Your task to perform on an android device: toggle priority inbox in the gmail app Image 0: 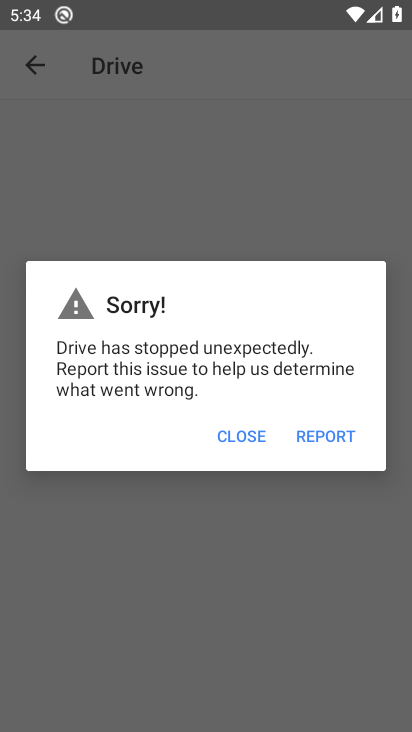
Step 0: drag from (140, 591) to (120, 118)
Your task to perform on an android device: toggle priority inbox in the gmail app Image 1: 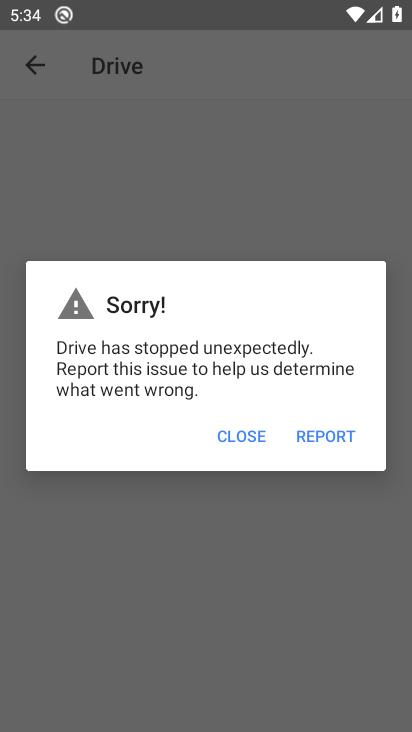
Step 1: drag from (198, 463) to (200, 352)
Your task to perform on an android device: toggle priority inbox in the gmail app Image 2: 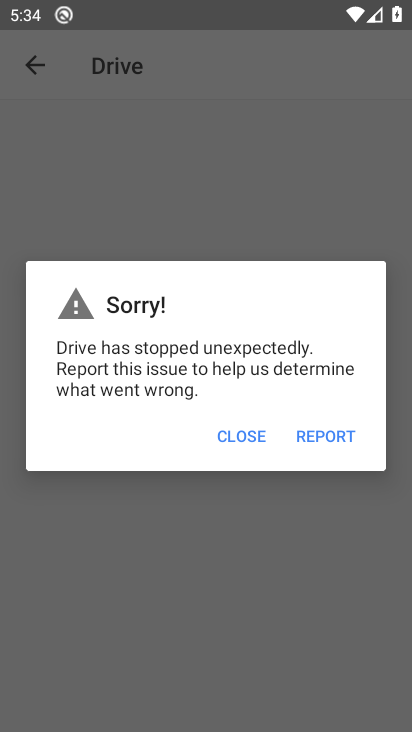
Step 2: click (231, 436)
Your task to perform on an android device: toggle priority inbox in the gmail app Image 3: 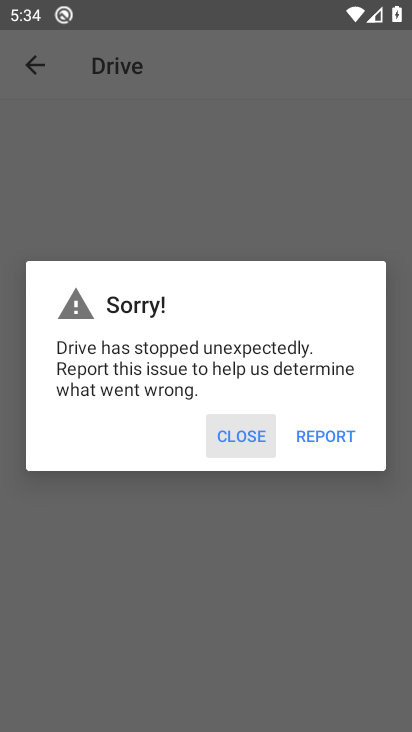
Step 3: click (233, 436)
Your task to perform on an android device: toggle priority inbox in the gmail app Image 4: 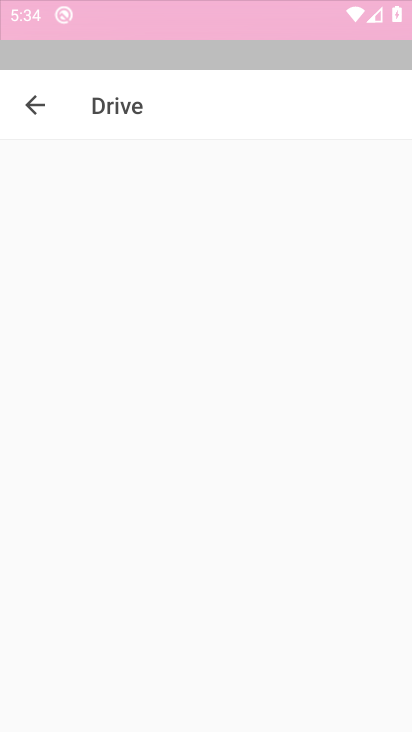
Step 4: click (234, 437)
Your task to perform on an android device: toggle priority inbox in the gmail app Image 5: 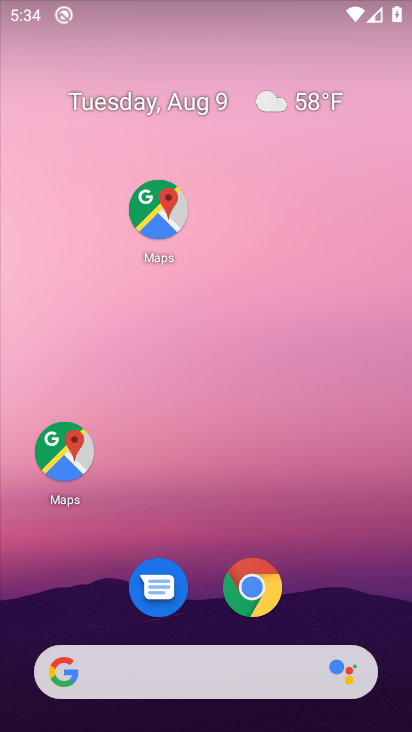
Step 5: drag from (216, 491) to (169, 99)
Your task to perform on an android device: toggle priority inbox in the gmail app Image 6: 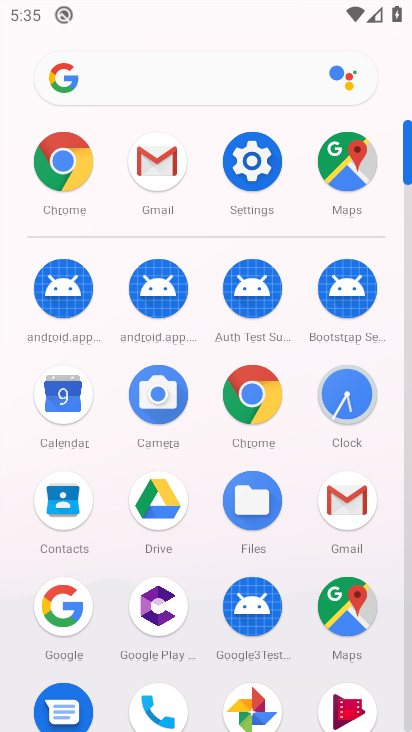
Step 6: click (335, 487)
Your task to perform on an android device: toggle priority inbox in the gmail app Image 7: 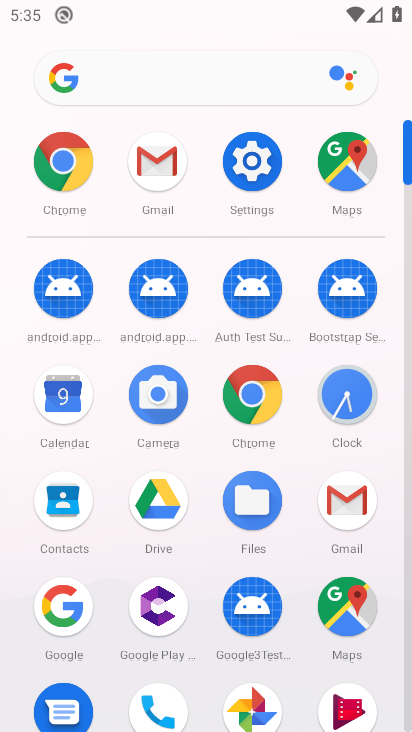
Step 7: click (335, 487)
Your task to perform on an android device: toggle priority inbox in the gmail app Image 8: 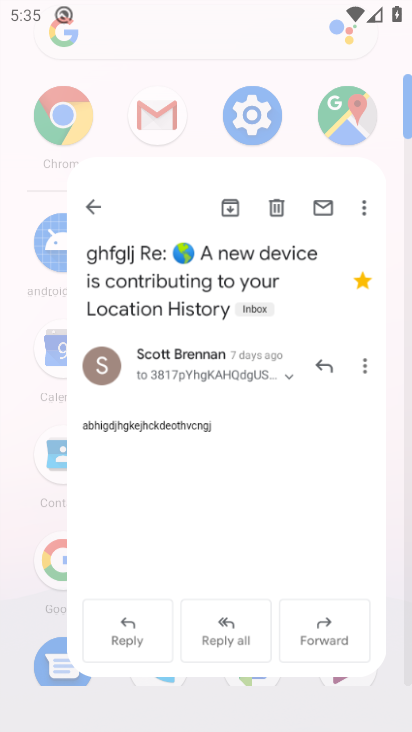
Step 8: click (335, 490)
Your task to perform on an android device: toggle priority inbox in the gmail app Image 9: 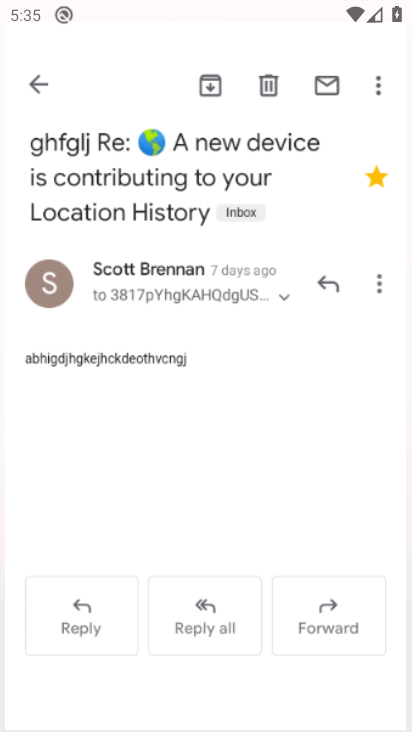
Step 9: click (333, 493)
Your task to perform on an android device: toggle priority inbox in the gmail app Image 10: 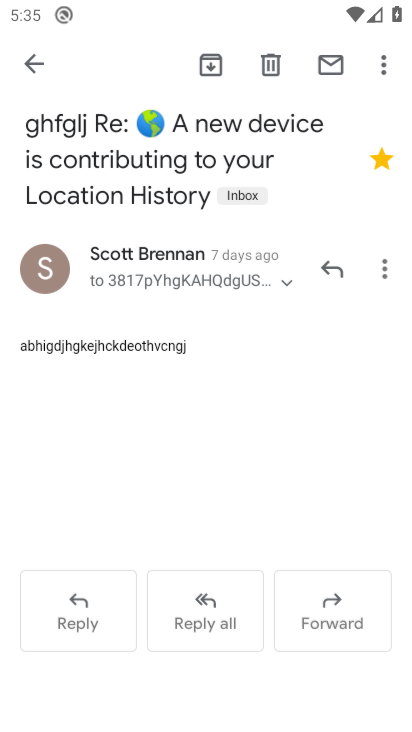
Step 10: click (330, 499)
Your task to perform on an android device: toggle priority inbox in the gmail app Image 11: 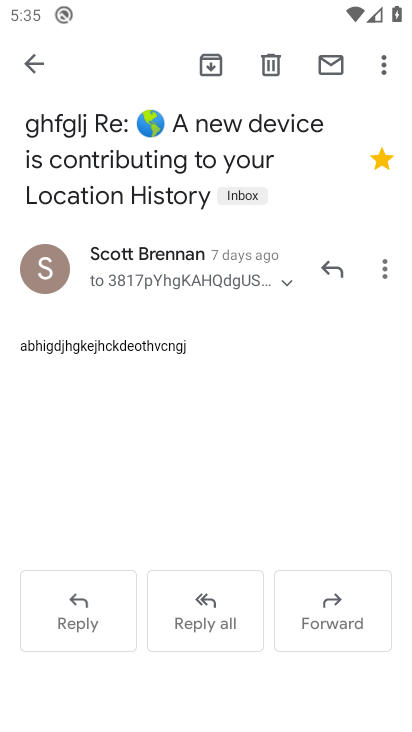
Step 11: click (335, 508)
Your task to perform on an android device: toggle priority inbox in the gmail app Image 12: 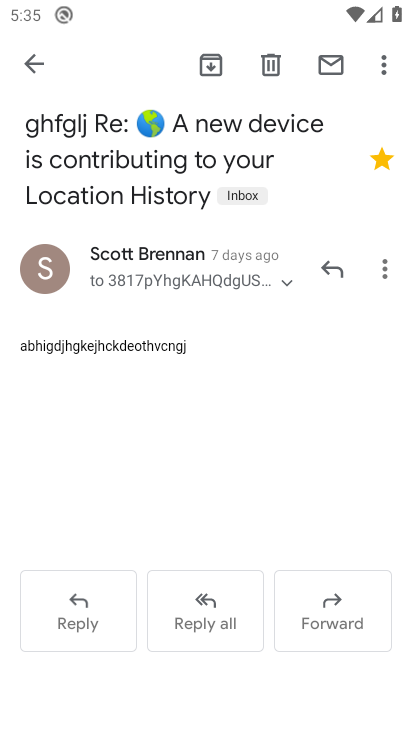
Step 12: click (34, 58)
Your task to perform on an android device: toggle priority inbox in the gmail app Image 13: 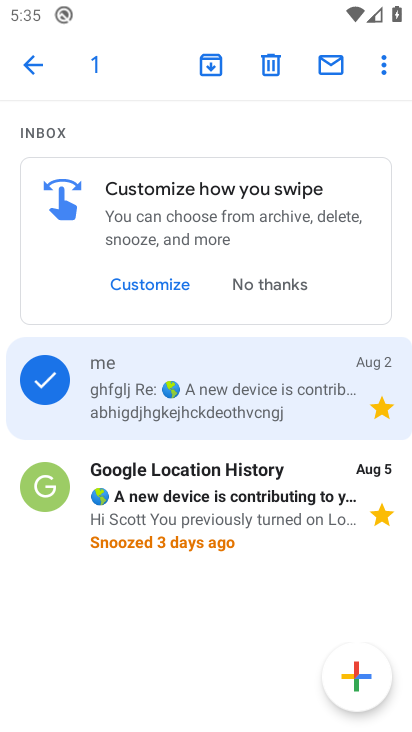
Step 13: click (24, 71)
Your task to perform on an android device: toggle priority inbox in the gmail app Image 14: 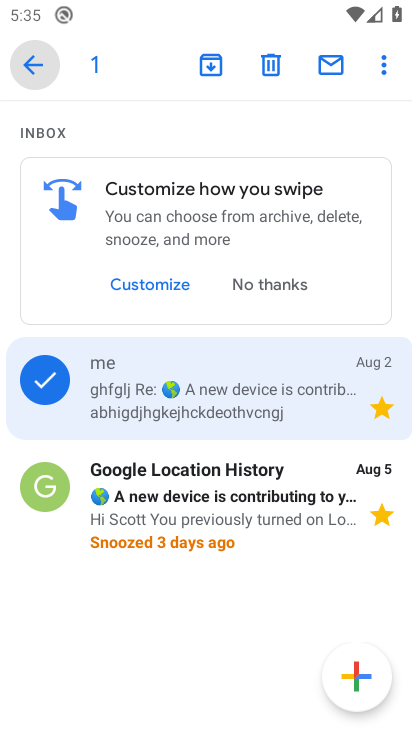
Step 14: click (24, 71)
Your task to perform on an android device: toggle priority inbox in the gmail app Image 15: 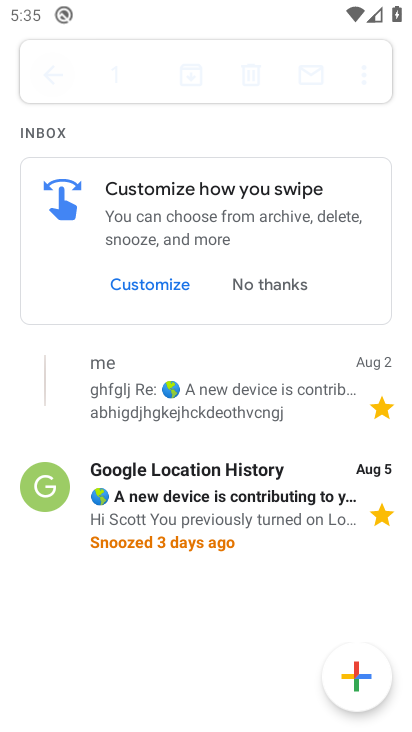
Step 15: click (24, 71)
Your task to perform on an android device: toggle priority inbox in the gmail app Image 16: 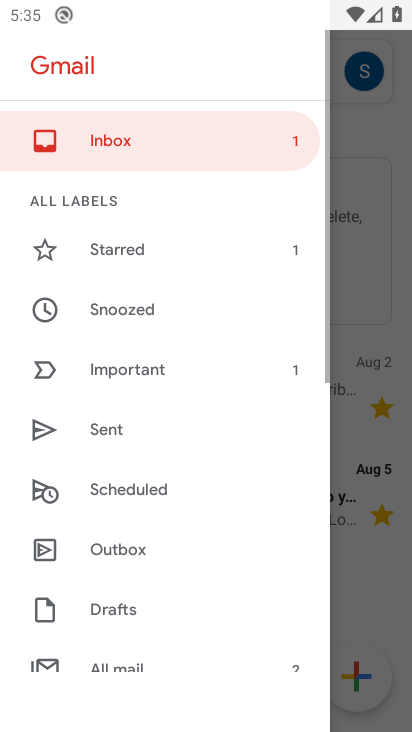
Step 16: drag from (155, 627) to (104, 176)
Your task to perform on an android device: toggle priority inbox in the gmail app Image 17: 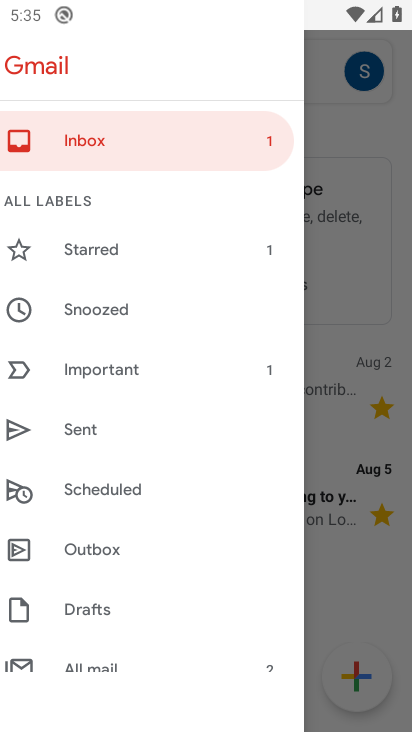
Step 17: drag from (86, 578) to (100, 230)
Your task to perform on an android device: toggle priority inbox in the gmail app Image 18: 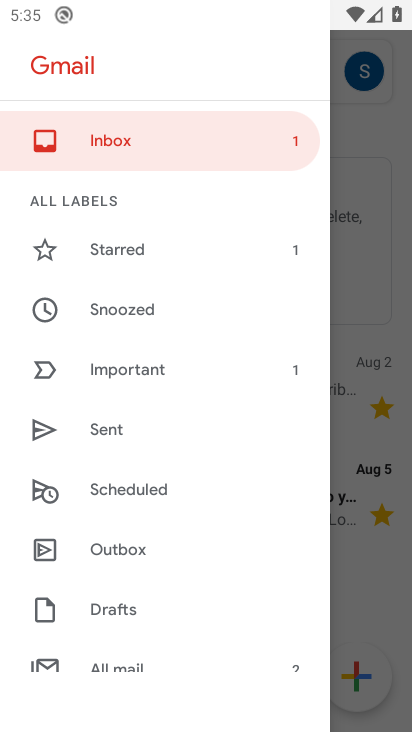
Step 18: drag from (110, 598) to (104, 112)
Your task to perform on an android device: toggle priority inbox in the gmail app Image 19: 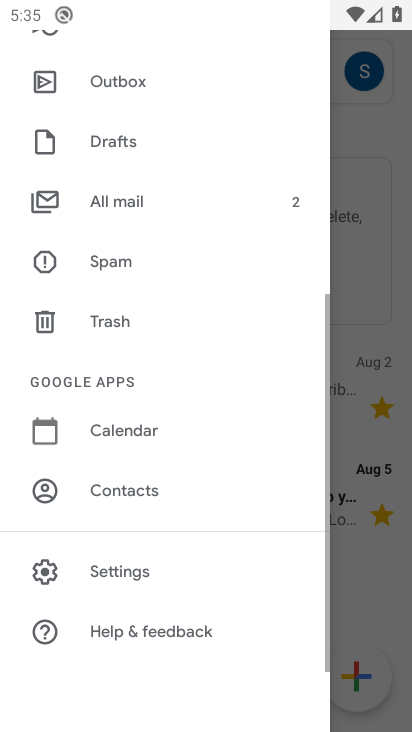
Step 19: drag from (74, 592) to (61, 310)
Your task to perform on an android device: toggle priority inbox in the gmail app Image 20: 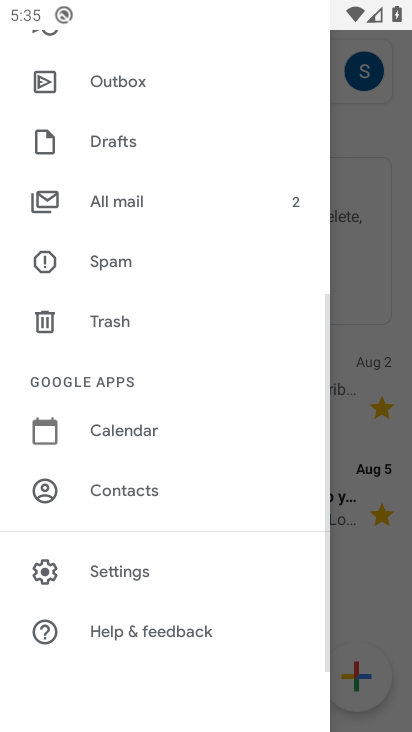
Step 20: drag from (121, 506) to (148, 168)
Your task to perform on an android device: toggle priority inbox in the gmail app Image 21: 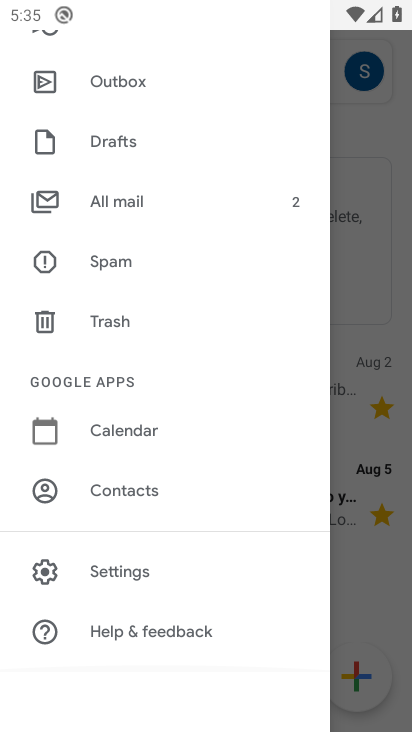
Step 21: click (115, 565)
Your task to perform on an android device: toggle priority inbox in the gmail app Image 22: 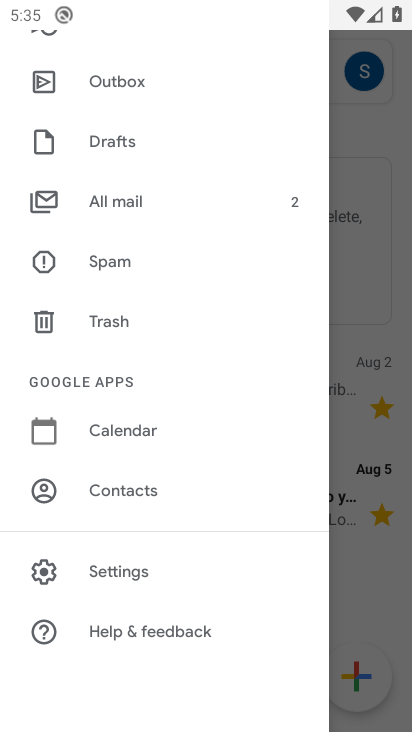
Step 22: click (101, 570)
Your task to perform on an android device: toggle priority inbox in the gmail app Image 23: 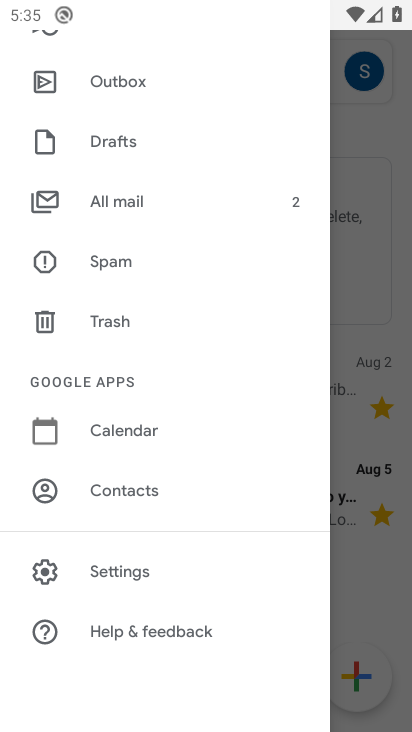
Step 23: click (112, 575)
Your task to perform on an android device: toggle priority inbox in the gmail app Image 24: 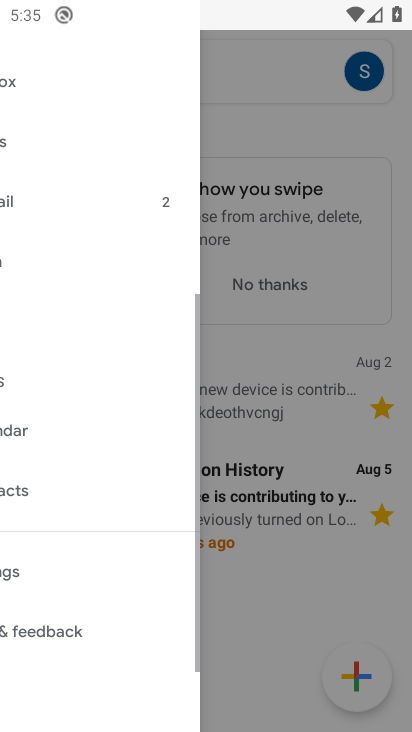
Step 24: click (112, 575)
Your task to perform on an android device: toggle priority inbox in the gmail app Image 25: 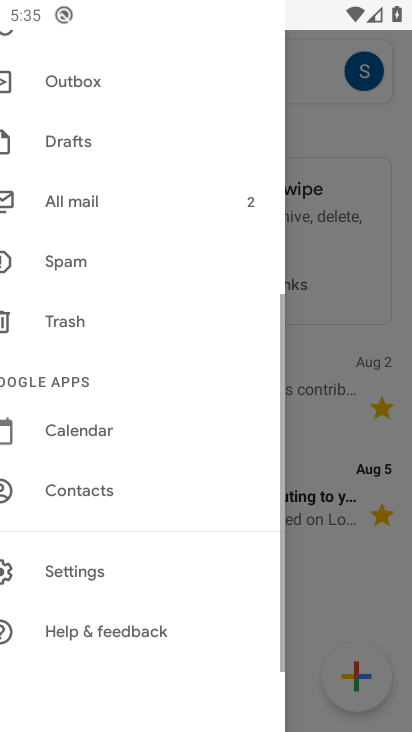
Step 25: click (118, 566)
Your task to perform on an android device: toggle priority inbox in the gmail app Image 26: 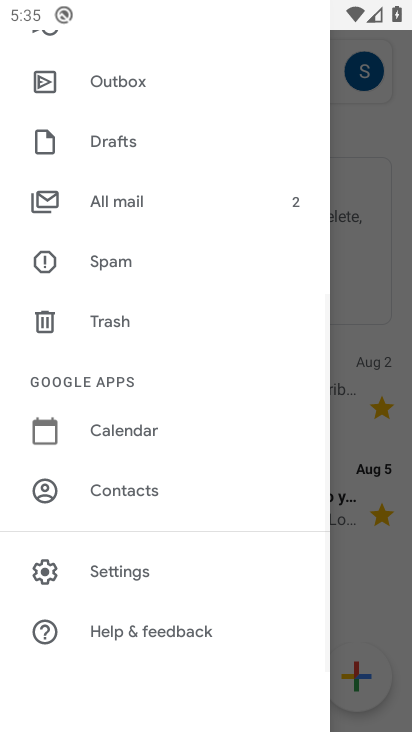
Step 26: click (79, 566)
Your task to perform on an android device: toggle priority inbox in the gmail app Image 27: 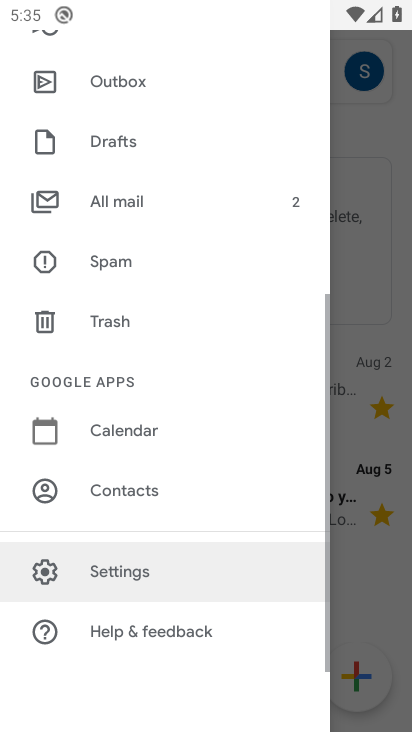
Step 27: click (93, 564)
Your task to perform on an android device: toggle priority inbox in the gmail app Image 28: 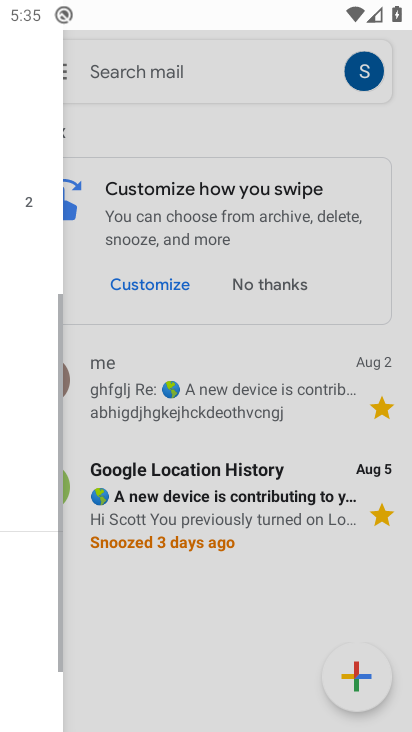
Step 28: click (134, 580)
Your task to perform on an android device: toggle priority inbox in the gmail app Image 29: 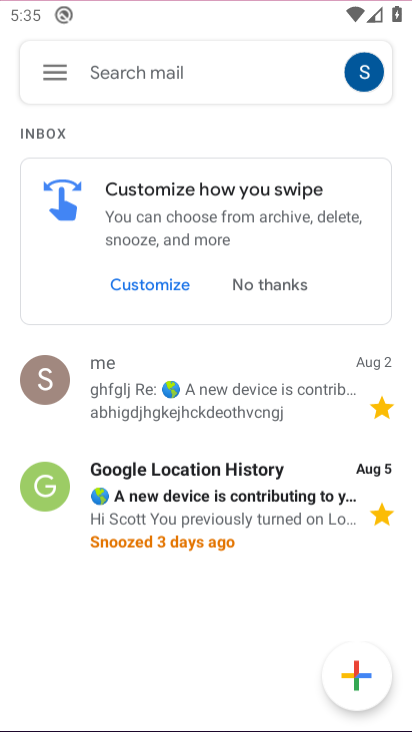
Step 29: click (134, 580)
Your task to perform on an android device: toggle priority inbox in the gmail app Image 30: 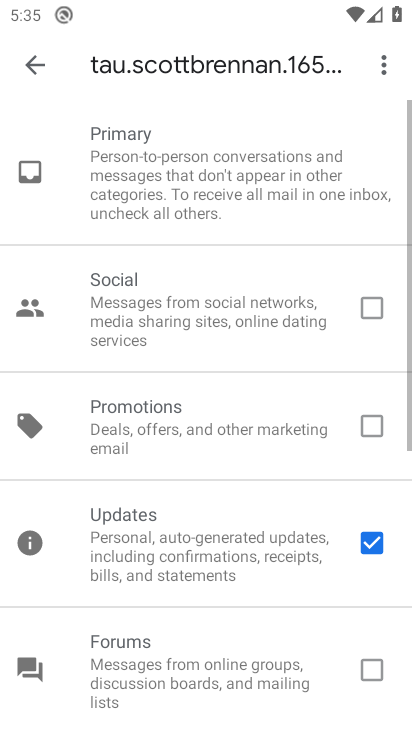
Step 30: task complete